Your task to perform on an android device: toggle notification dots Image 0: 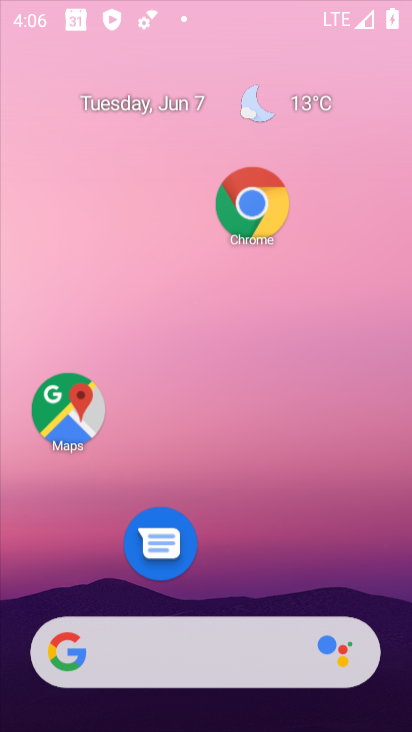
Step 0: press home button
Your task to perform on an android device: toggle notification dots Image 1: 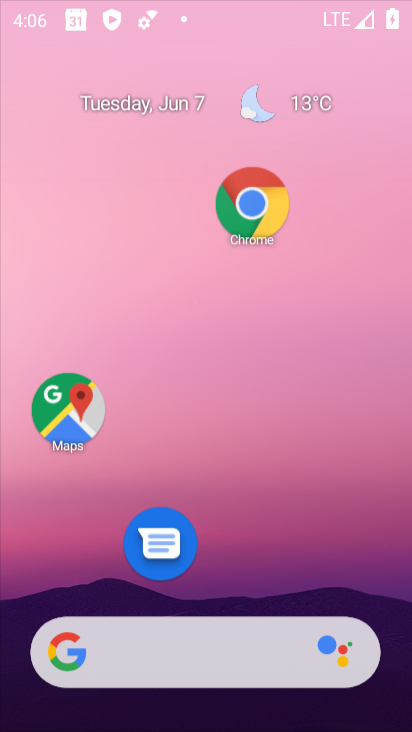
Step 1: drag from (197, 441) to (178, 91)
Your task to perform on an android device: toggle notification dots Image 2: 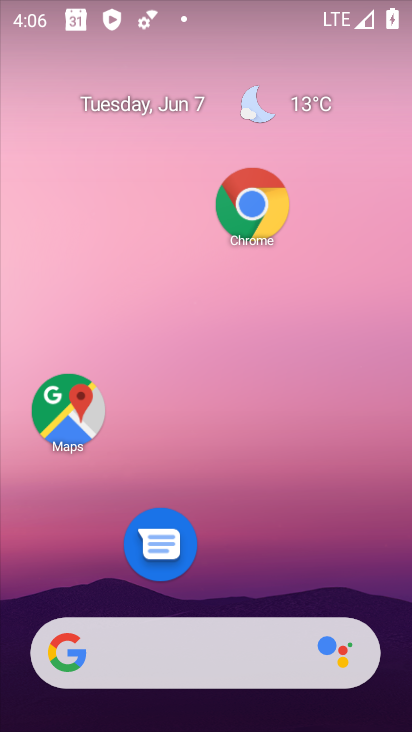
Step 2: press home button
Your task to perform on an android device: toggle notification dots Image 3: 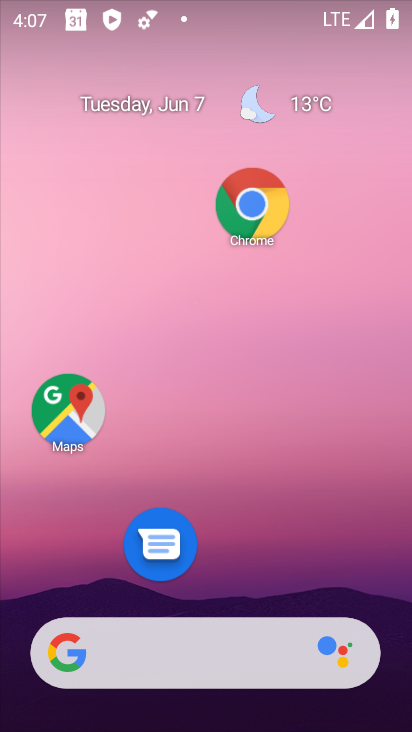
Step 3: drag from (219, 583) to (204, 4)
Your task to perform on an android device: toggle notification dots Image 4: 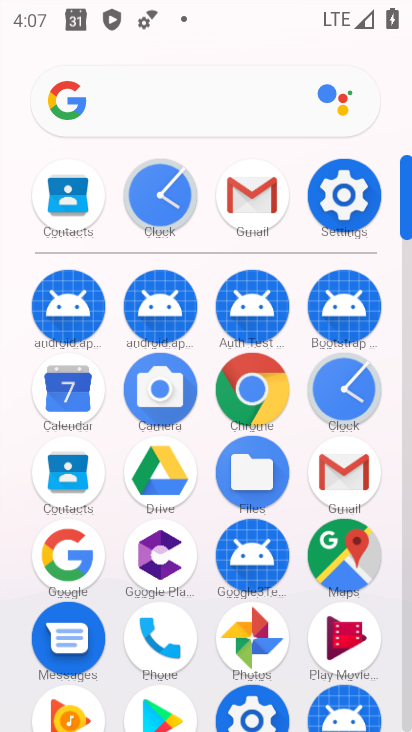
Step 4: click (342, 191)
Your task to perform on an android device: toggle notification dots Image 5: 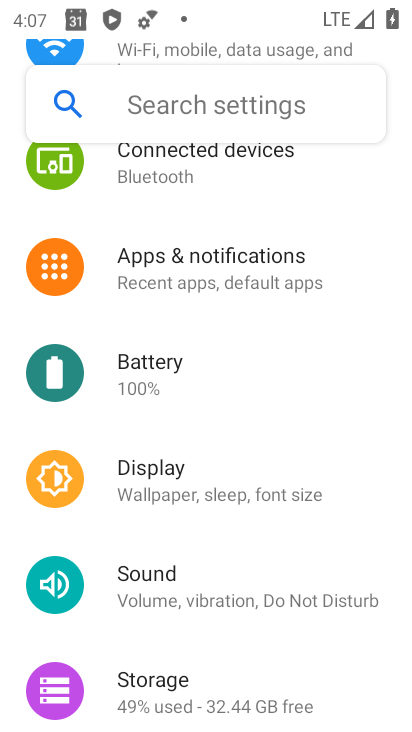
Step 5: click (314, 260)
Your task to perform on an android device: toggle notification dots Image 6: 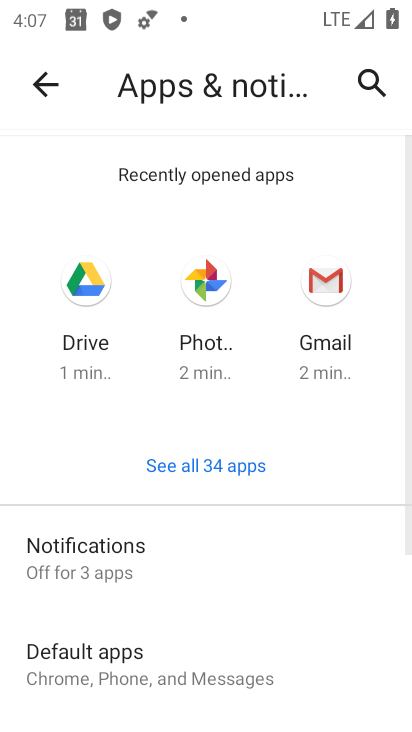
Step 6: click (138, 560)
Your task to perform on an android device: toggle notification dots Image 7: 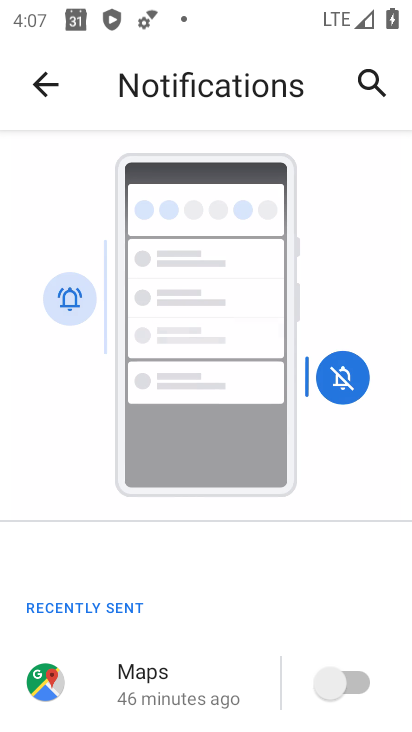
Step 7: drag from (232, 627) to (228, 208)
Your task to perform on an android device: toggle notification dots Image 8: 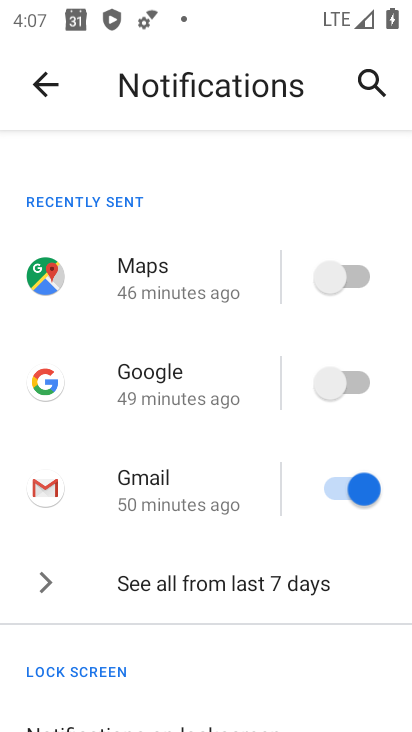
Step 8: drag from (185, 671) to (199, 148)
Your task to perform on an android device: toggle notification dots Image 9: 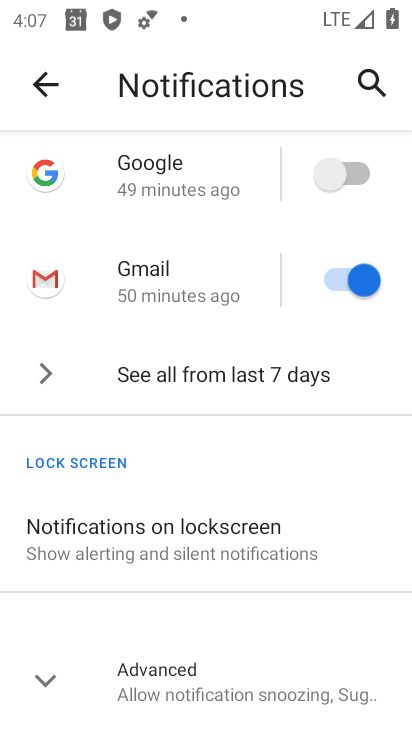
Step 9: click (42, 669)
Your task to perform on an android device: toggle notification dots Image 10: 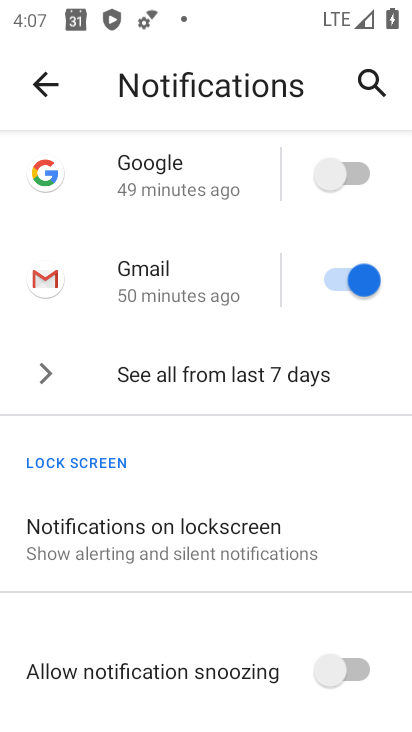
Step 10: drag from (191, 692) to (189, 163)
Your task to perform on an android device: toggle notification dots Image 11: 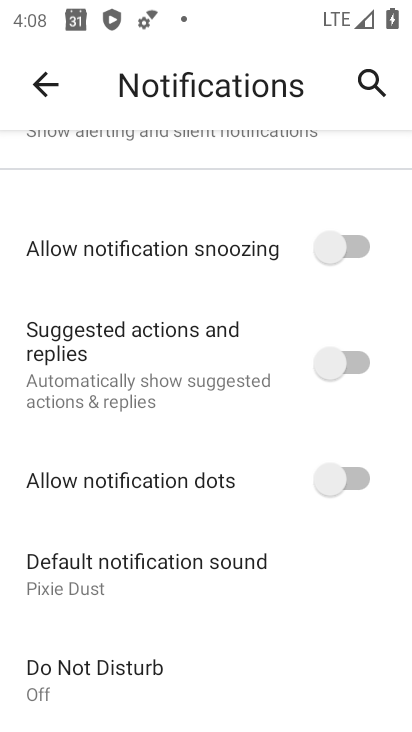
Step 11: click (350, 477)
Your task to perform on an android device: toggle notification dots Image 12: 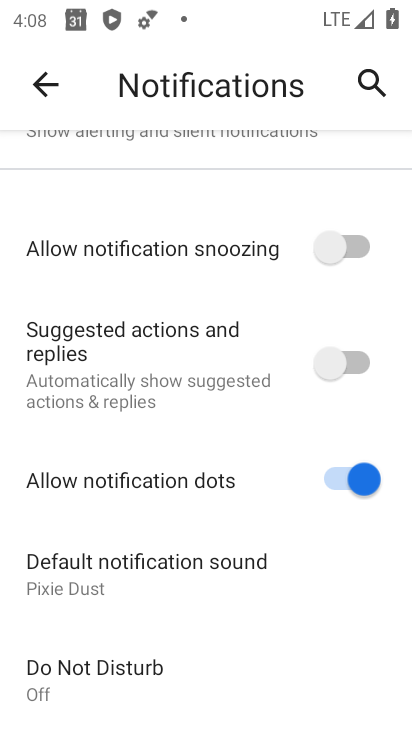
Step 12: task complete